Your task to perform on an android device: Turn off the flashlight Image 0: 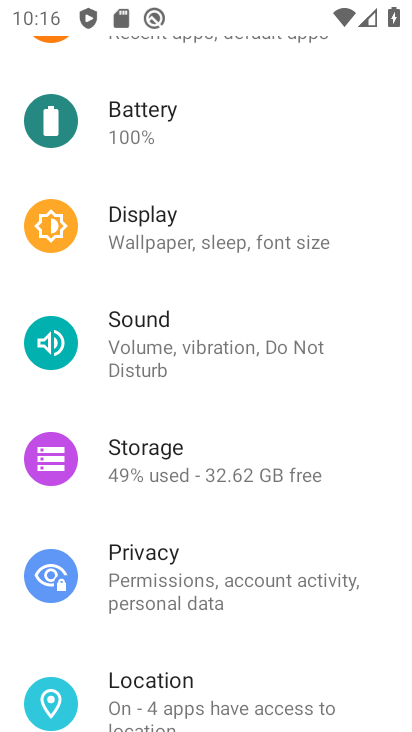
Step 0: task impossible